Your task to perform on an android device: Open Android settings Image 0: 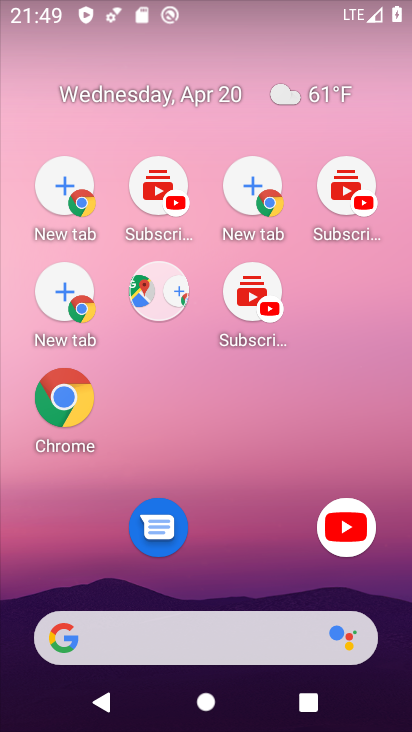
Step 0: drag from (244, 670) to (95, 84)
Your task to perform on an android device: Open Android settings Image 1: 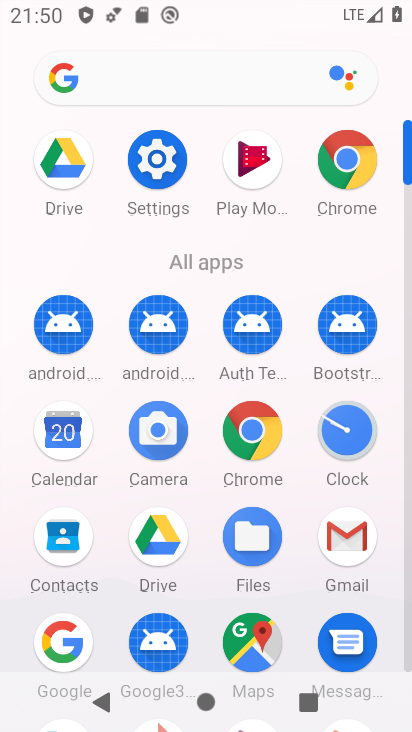
Step 1: click (148, 153)
Your task to perform on an android device: Open Android settings Image 2: 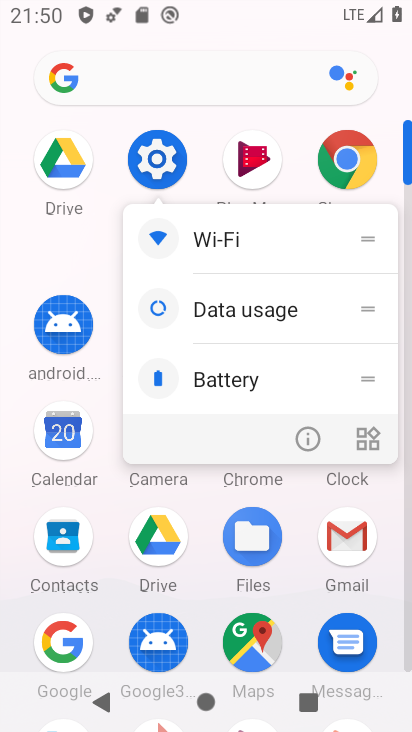
Step 2: click (152, 165)
Your task to perform on an android device: Open Android settings Image 3: 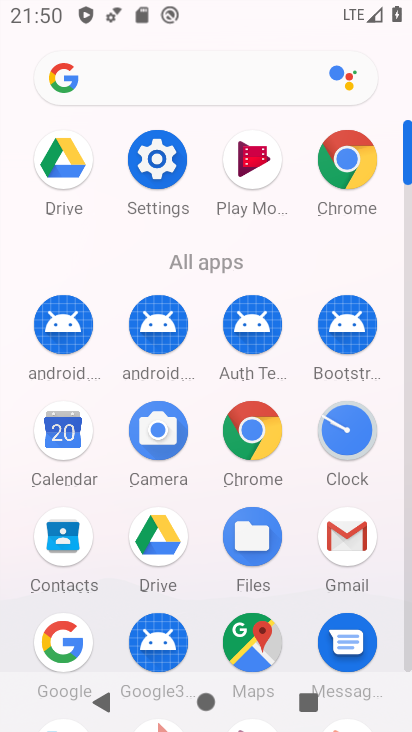
Step 3: click (156, 154)
Your task to perform on an android device: Open Android settings Image 4: 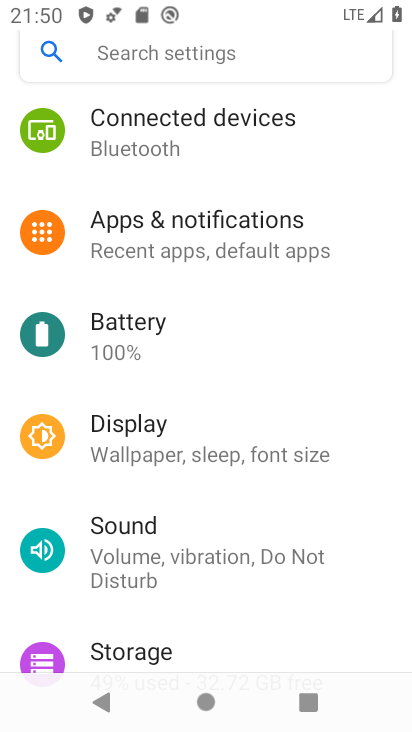
Step 4: drag from (262, 605) to (162, 341)
Your task to perform on an android device: Open Android settings Image 5: 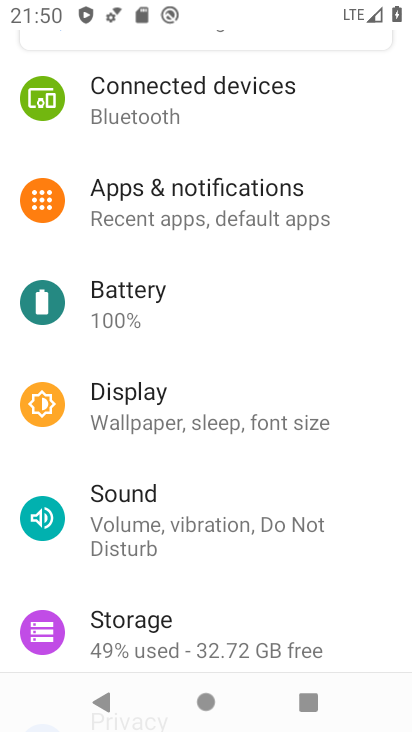
Step 5: drag from (235, 424) to (217, 159)
Your task to perform on an android device: Open Android settings Image 6: 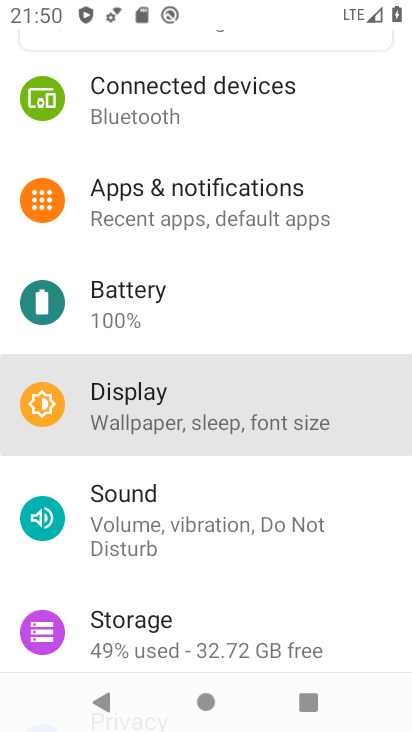
Step 6: drag from (222, 436) to (189, 174)
Your task to perform on an android device: Open Android settings Image 7: 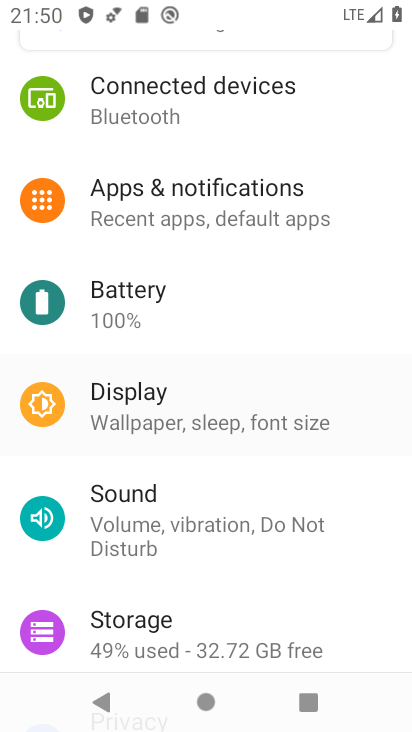
Step 7: drag from (190, 432) to (152, 129)
Your task to perform on an android device: Open Android settings Image 8: 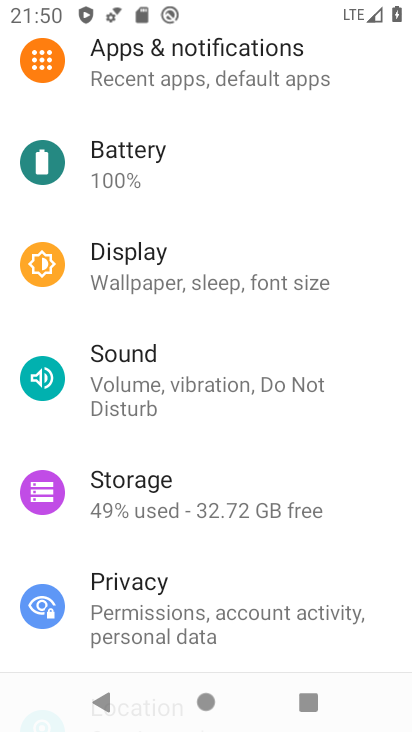
Step 8: drag from (231, 586) to (170, 147)
Your task to perform on an android device: Open Android settings Image 9: 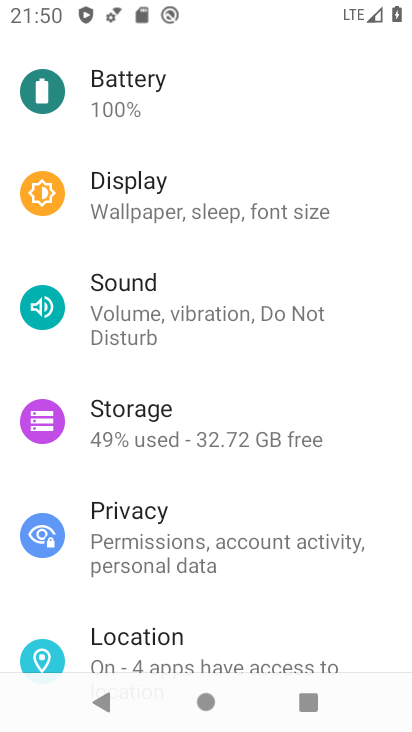
Step 9: drag from (228, 124) to (163, 148)
Your task to perform on an android device: Open Android settings Image 10: 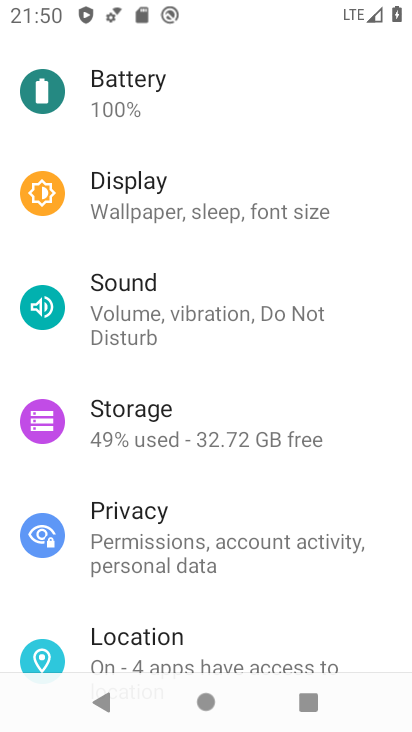
Step 10: drag from (229, 515) to (159, 71)
Your task to perform on an android device: Open Android settings Image 11: 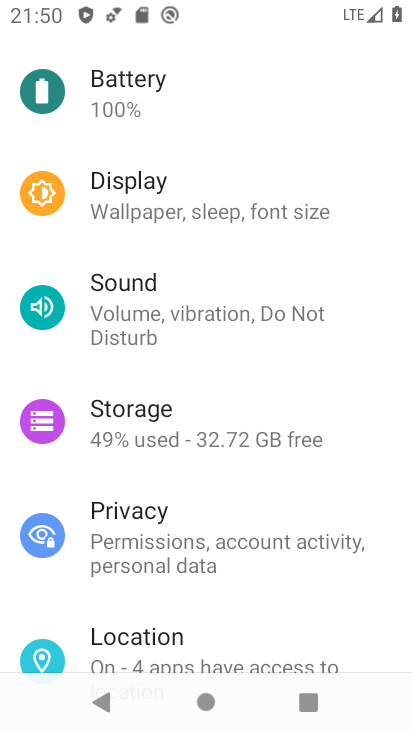
Step 11: drag from (218, 540) to (140, 305)
Your task to perform on an android device: Open Android settings Image 12: 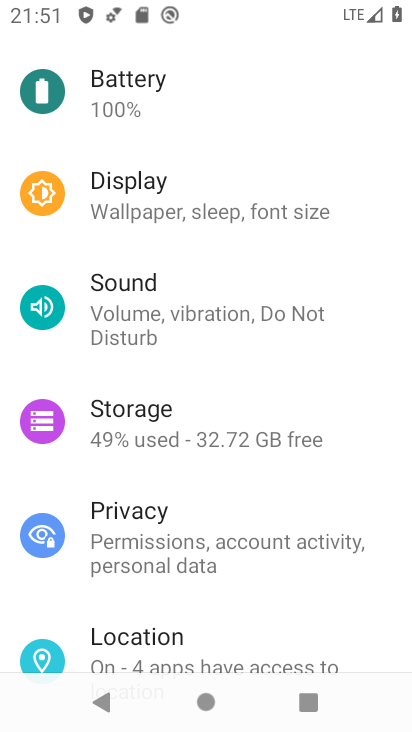
Step 12: click (178, 294)
Your task to perform on an android device: Open Android settings Image 13: 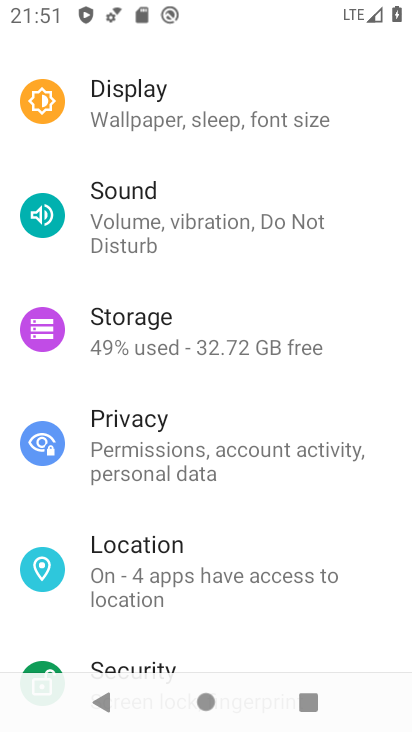
Step 13: click (200, 173)
Your task to perform on an android device: Open Android settings Image 14: 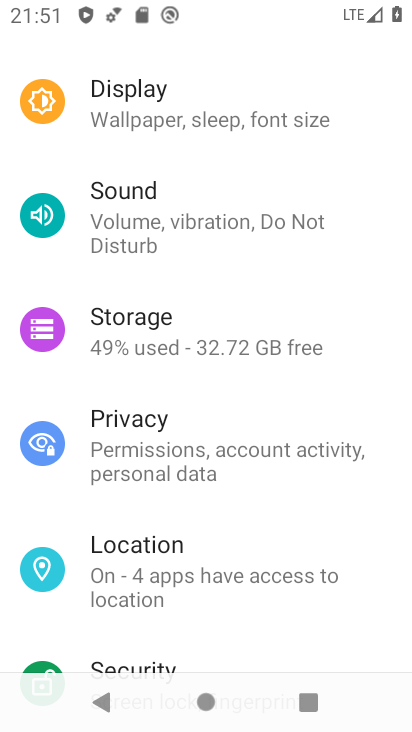
Step 14: drag from (263, 491) to (185, 83)
Your task to perform on an android device: Open Android settings Image 15: 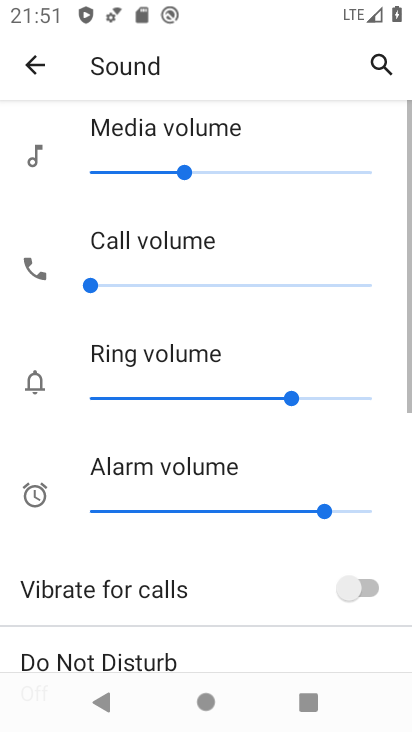
Step 15: drag from (221, 123) to (288, 39)
Your task to perform on an android device: Open Android settings Image 16: 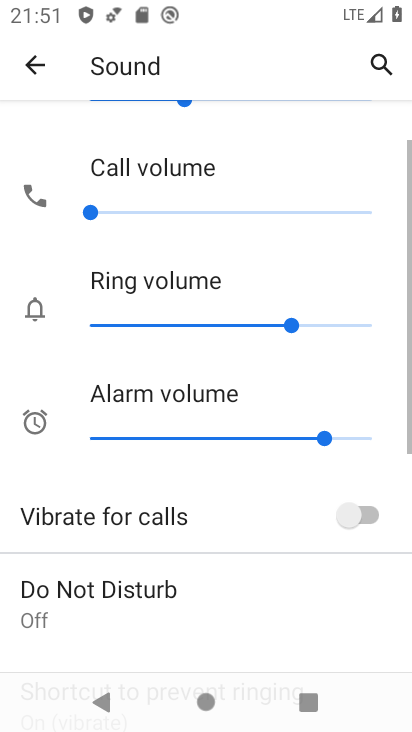
Step 16: click (284, 241)
Your task to perform on an android device: Open Android settings Image 17: 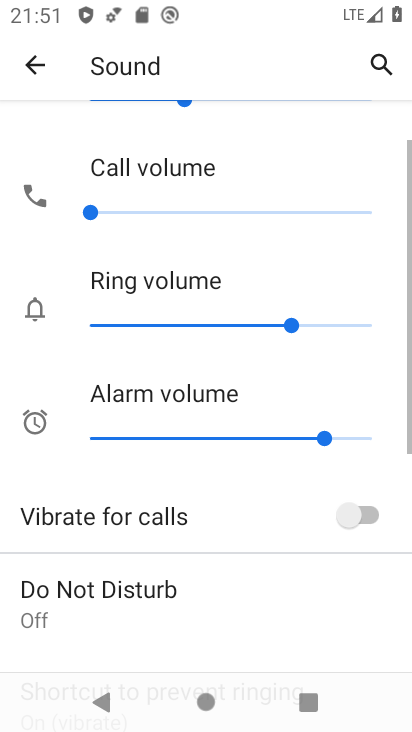
Step 17: click (158, 0)
Your task to perform on an android device: Open Android settings Image 18: 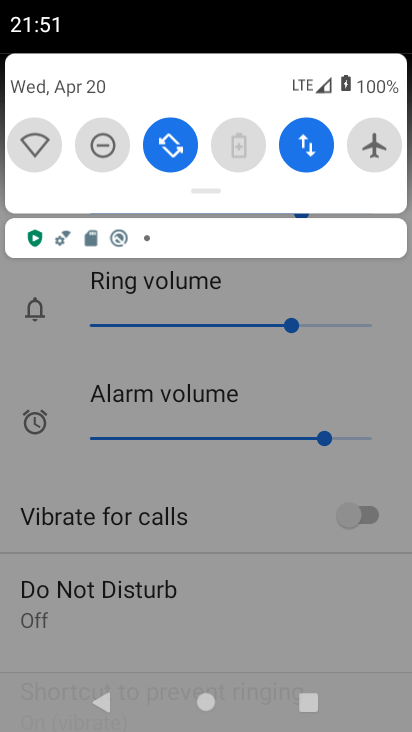
Step 18: drag from (272, 479) to (256, 91)
Your task to perform on an android device: Open Android settings Image 19: 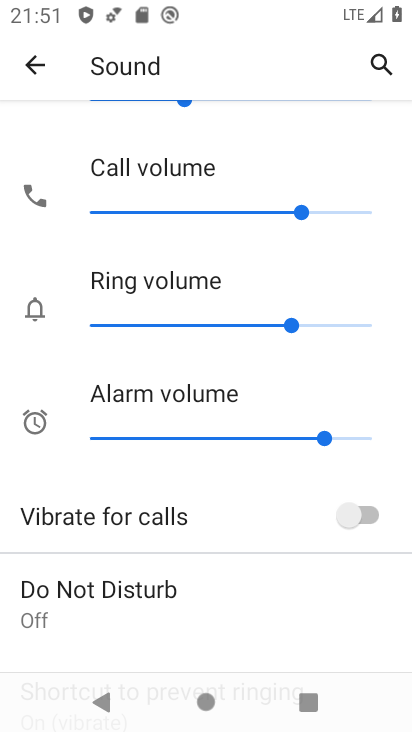
Step 19: click (239, 232)
Your task to perform on an android device: Open Android settings Image 20: 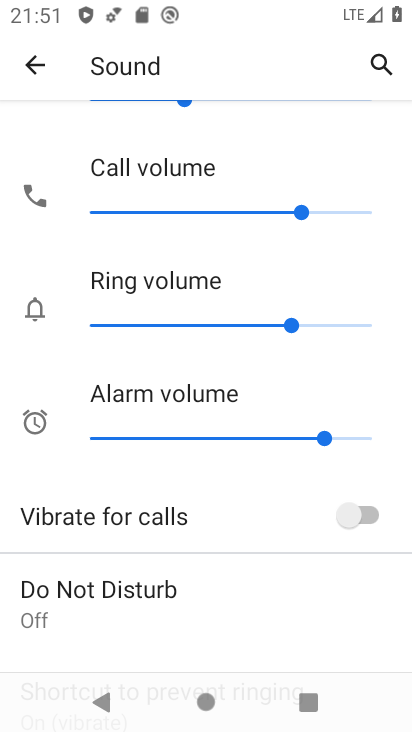
Step 20: drag from (232, 490) to (29, 58)
Your task to perform on an android device: Open Android settings Image 21: 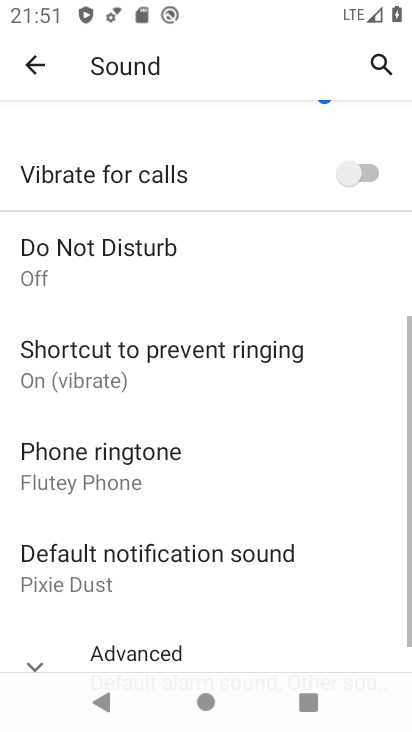
Step 21: drag from (158, 141) to (28, 64)
Your task to perform on an android device: Open Android settings Image 22: 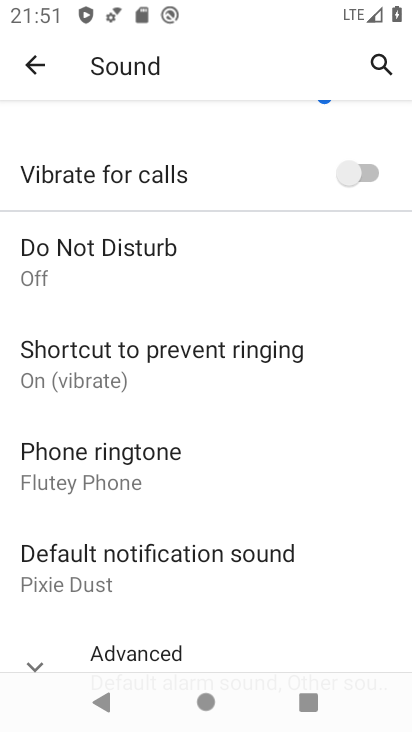
Step 22: click (30, 65)
Your task to perform on an android device: Open Android settings Image 23: 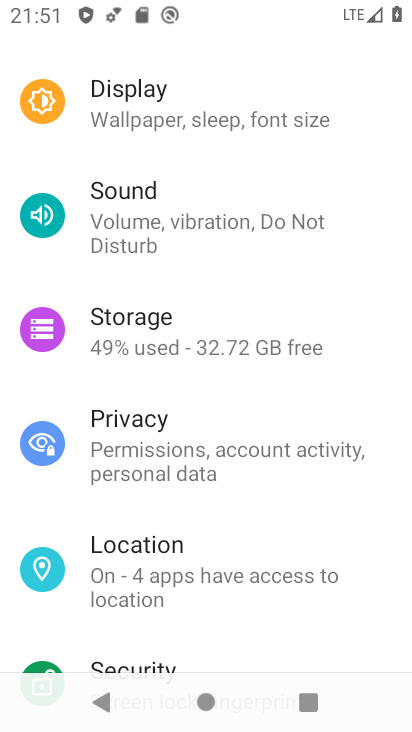
Step 23: drag from (227, 634) to (84, 126)
Your task to perform on an android device: Open Android settings Image 24: 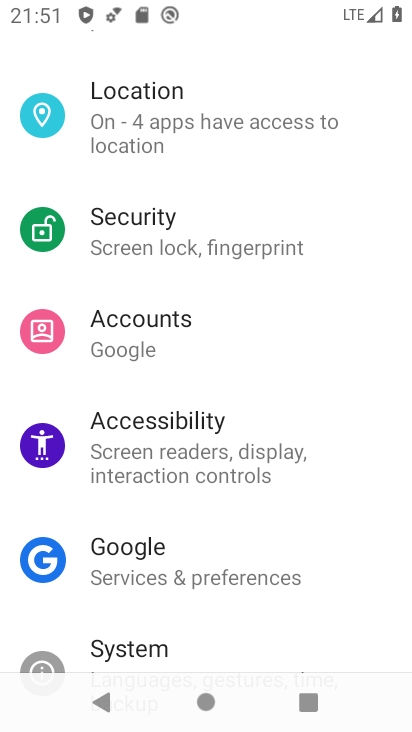
Step 24: drag from (118, 375) to (118, 207)
Your task to perform on an android device: Open Android settings Image 25: 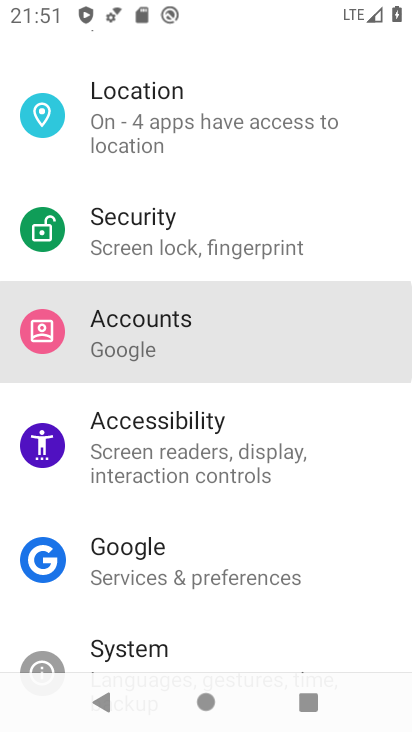
Step 25: click (45, 218)
Your task to perform on an android device: Open Android settings Image 26: 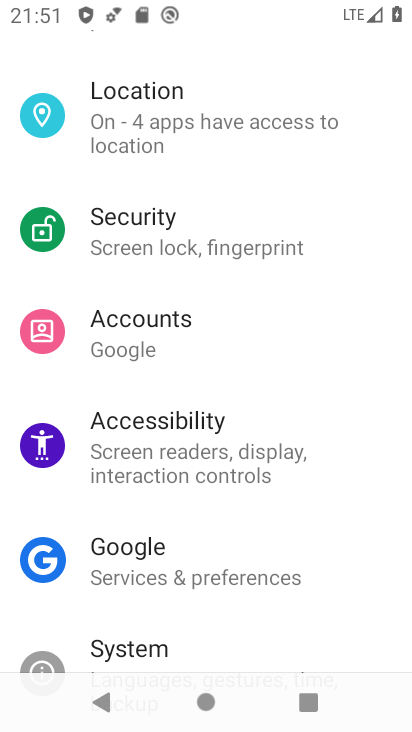
Step 26: drag from (174, 451) to (99, 86)
Your task to perform on an android device: Open Android settings Image 27: 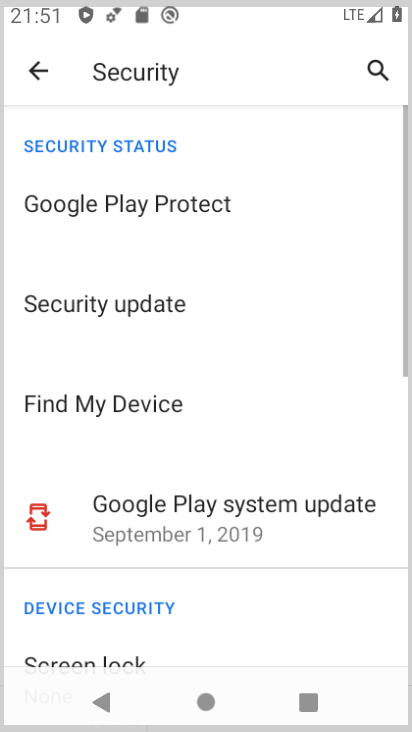
Step 27: drag from (161, 457) to (157, 65)
Your task to perform on an android device: Open Android settings Image 28: 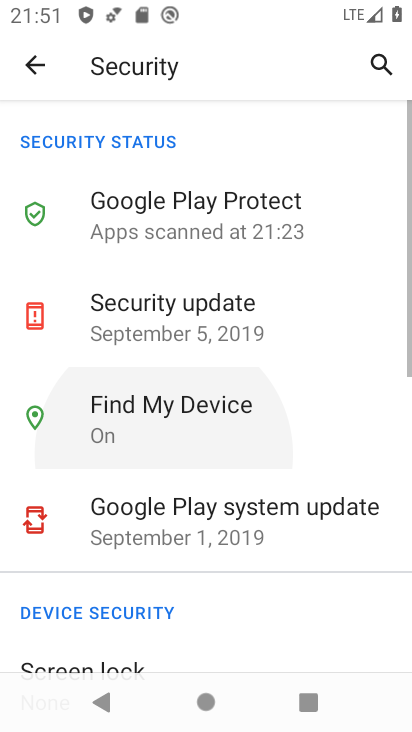
Step 28: drag from (243, 497) to (256, 133)
Your task to perform on an android device: Open Android settings Image 29: 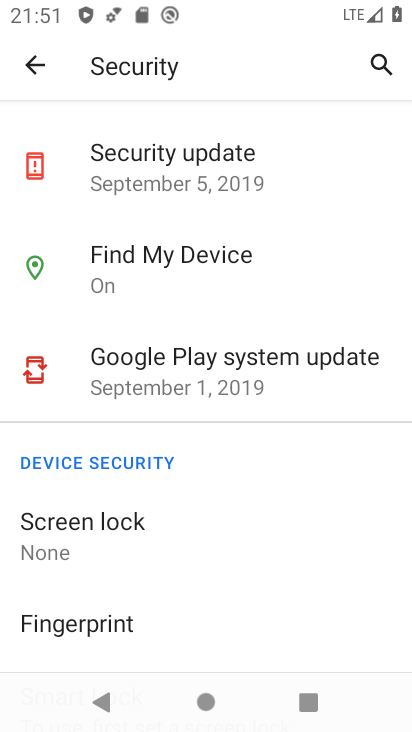
Step 29: click (26, 59)
Your task to perform on an android device: Open Android settings Image 30: 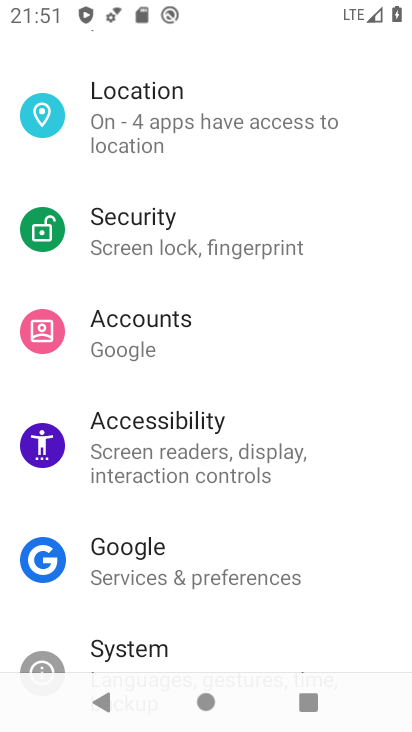
Step 30: drag from (219, 474) to (217, 55)
Your task to perform on an android device: Open Android settings Image 31: 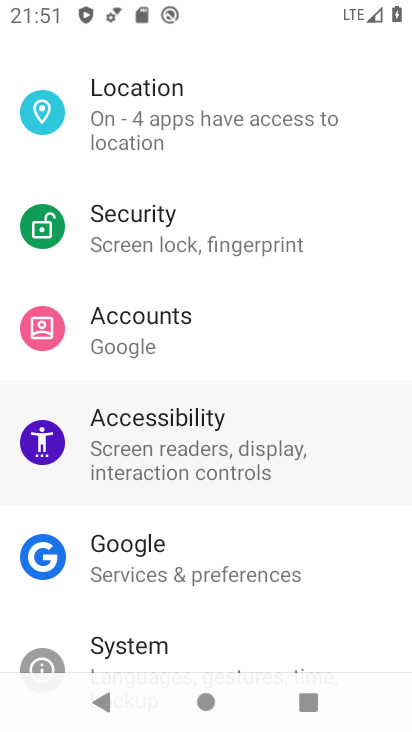
Step 31: drag from (259, 515) to (220, 131)
Your task to perform on an android device: Open Android settings Image 32: 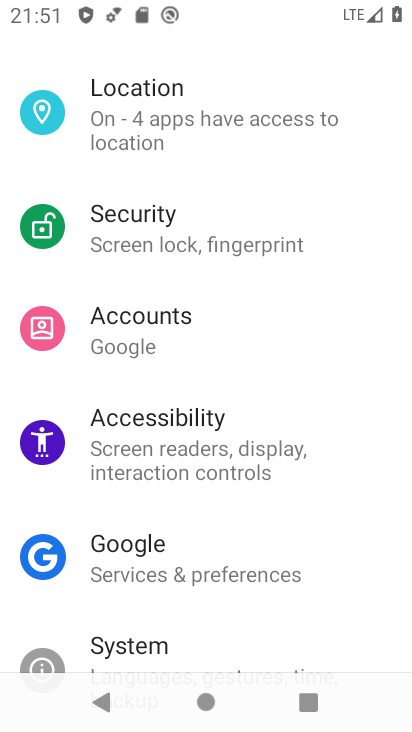
Step 32: drag from (290, 480) to (203, 122)
Your task to perform on an android device: Open Android settings Image 33: 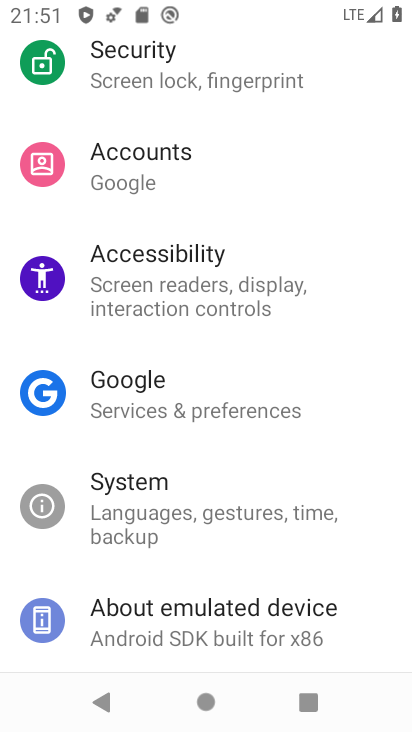
Step 33: drag from (251, 281) to (309, 15)
Your task to perform on an android device: Open Android settings Image 34: 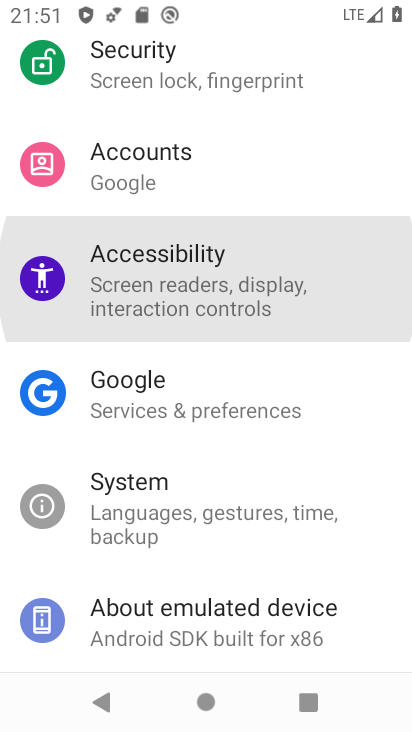
Step 34: drag from (184, 342) to (182, 120)
Your task to perform on an android device: Open Android settings Image 35: 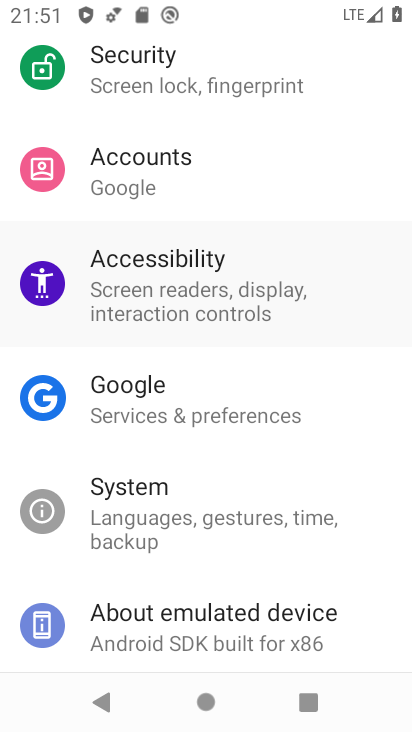
Step 35: drag from (196, 376) to (169, 46)
Your task to perform on an android device: Open Android settings Image 36: 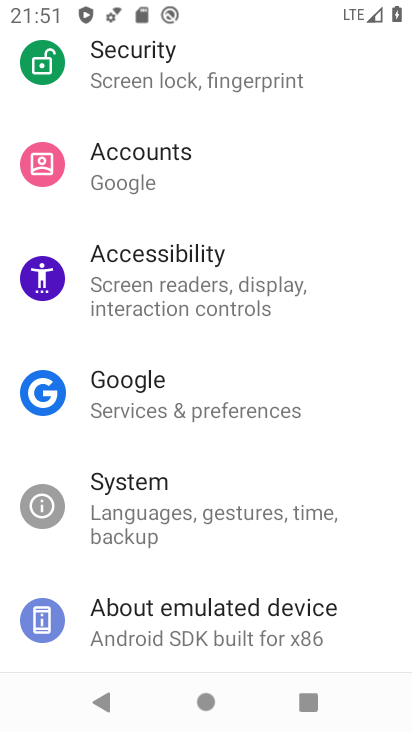
Step 36: drag from (213, 408) to (181, 176)
Your task to perform on an android device: Open Android settings Image 37: 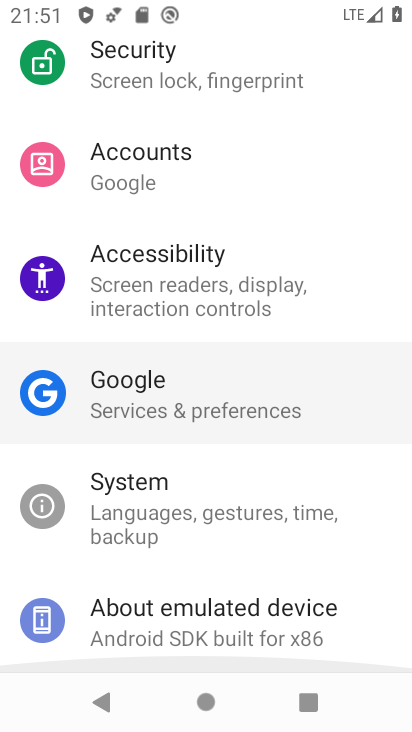
Step 37: drag from (134, 396) to (121, 97)
Your task to perform on an android device: Open Android settings Image 38: 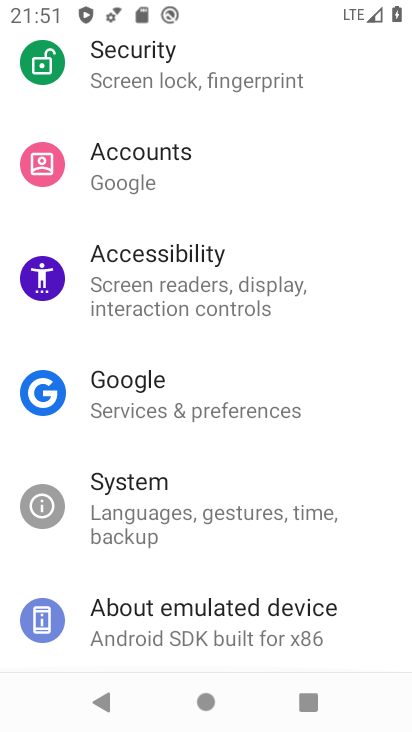
Step 38: drag from (176, 294) to (176, 152)
Your task to perform on an android device: Open Android settings Image 39: 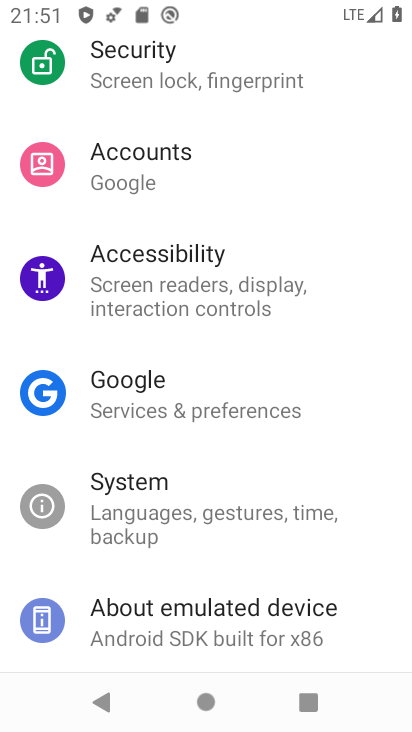
Step 39: drag from (186, 7) to (218, 52)
Your task to perform on an android device: Open Android settings Image 40: 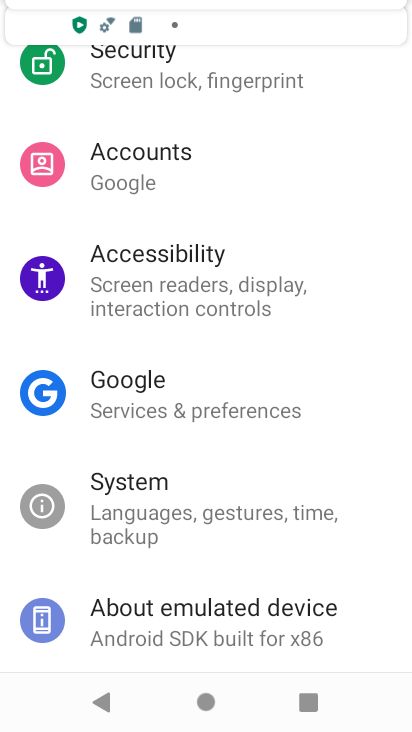
Step 40: drag from (217, 229) to (185, 17)
Your task to perform on an android device: Open Android settings Image 41: 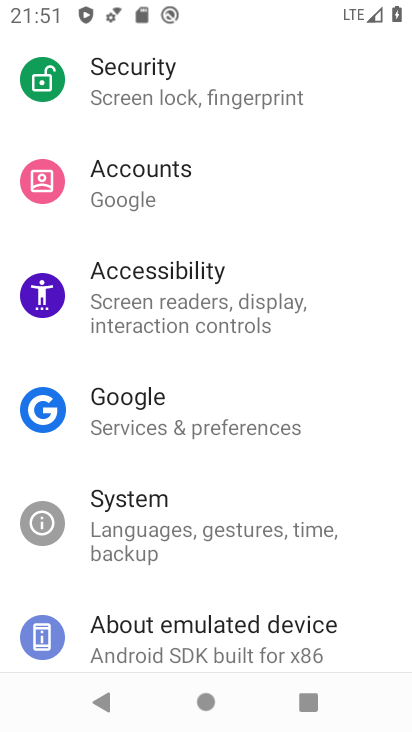
Step 41: click (176, 617)
Your task to perform on an android device: Open Android settings Image 42: 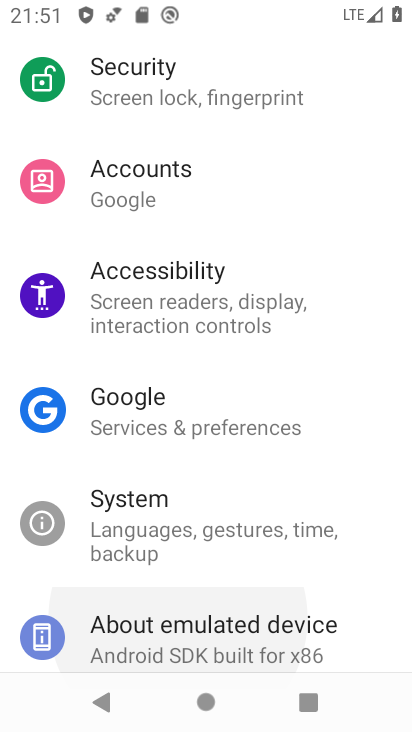
Step 42: click (174, 356)
Your task to perform on an android device: Open Android settings Image 43: 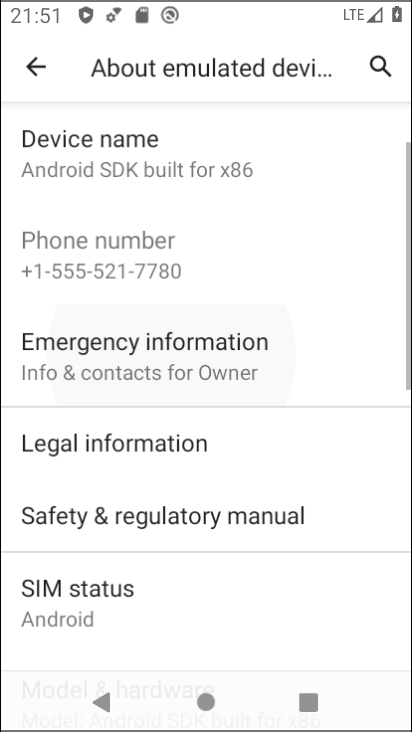
Step 43: click (253, 90)
Your task to perform on an android device: Open Android settings Image 44: 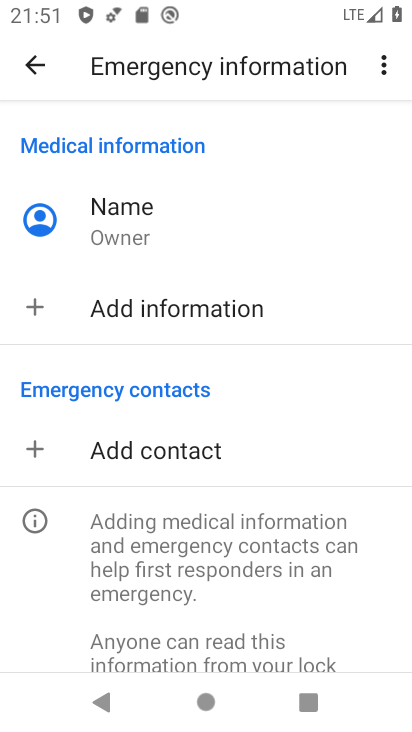
Step 44: drag from (159, 519) to (132, 32)
Your task to perform on an android device: Open Android settings Image 45: 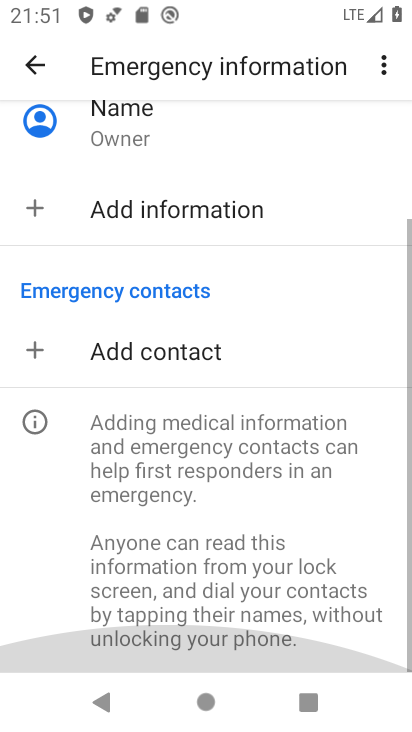
Step 45: drag from (284, 581) to (175, 119)
Your task to perform on an android device: Open Android settings Image 46: 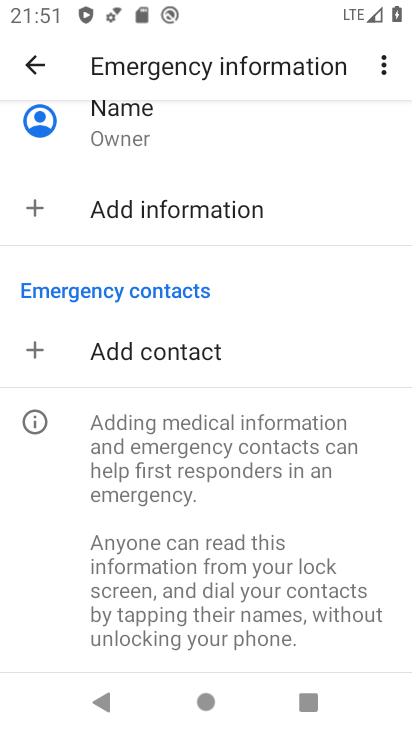
Step 46: click (29, 59)
Your task to perform on an android device: Open Android settings Image 47: 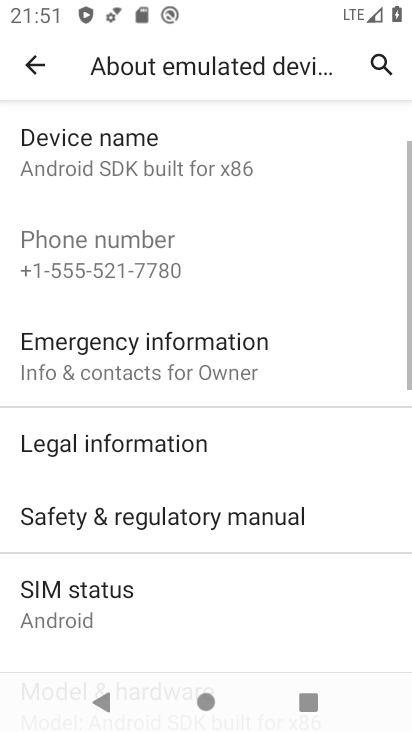
Step 47: drag from (179, 341) to (157, 32)
Your task to perform on an android device: Open Android settings Image 48: 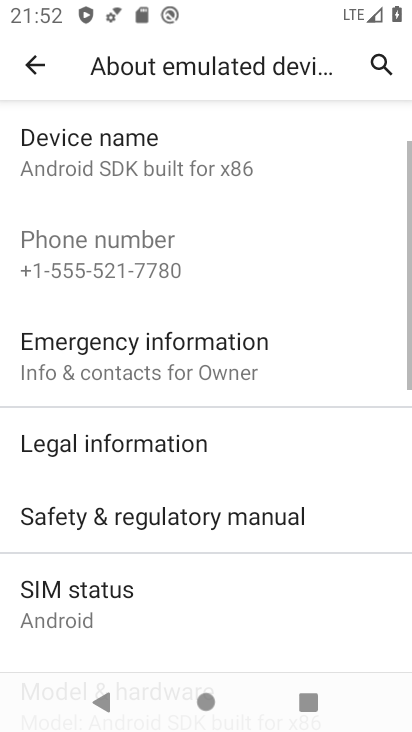
Step 48: drag from (164, 536) to (72, 96)
Your task to perform on an android device: Open Android settings Image 49: 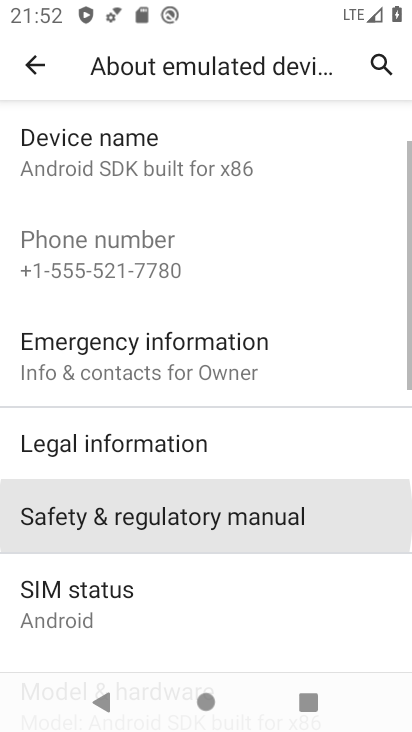
Step 49: drag from (151, 217) to (58, 59)
Your task to perform on an android device: Open Android settings Image 50: 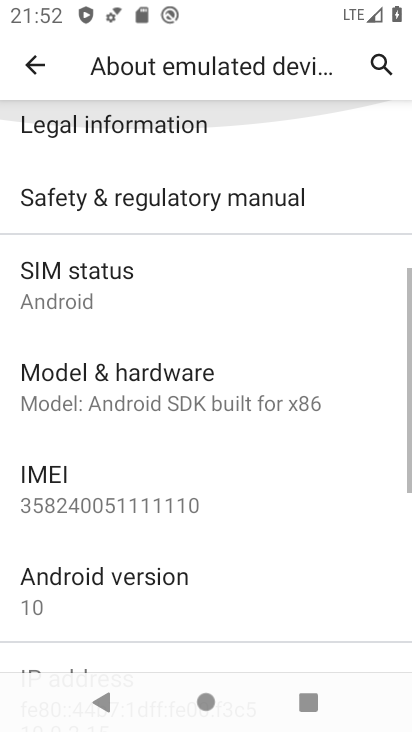
Step 50: drag from (150, 215) to (153, 26)
Your task to perform on an android device: Open Android settings Image 51: 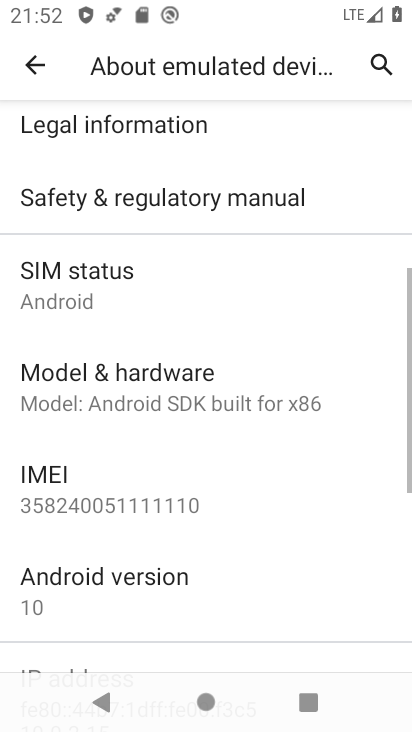
Step 51: drag from (252, 368) to (238, 88)
Your task to perform on an android device: Open Android settings Image 52: 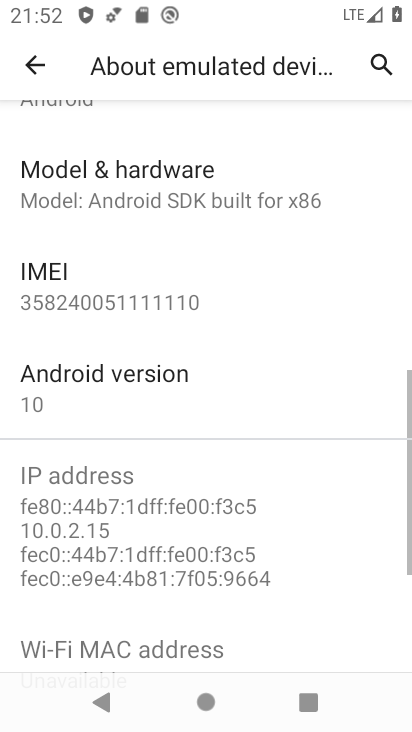
Step 52: click (135, 103)
Your task to perform on an android device: Open Android settings Image 53: 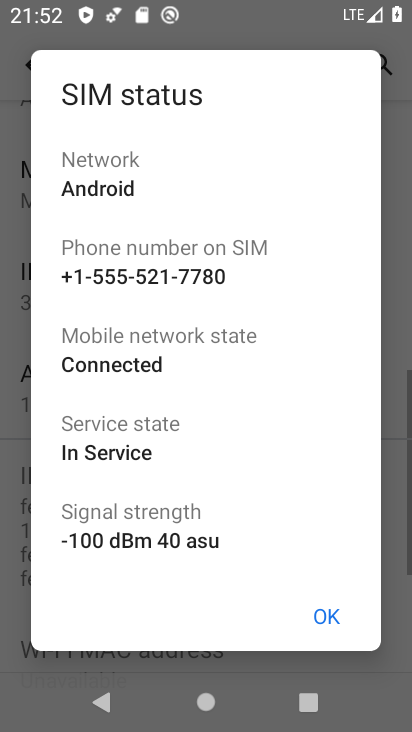
Step 53: task complete